Your task to perform on an android device: Search for seafood restaurants on Google Maps Image 0: 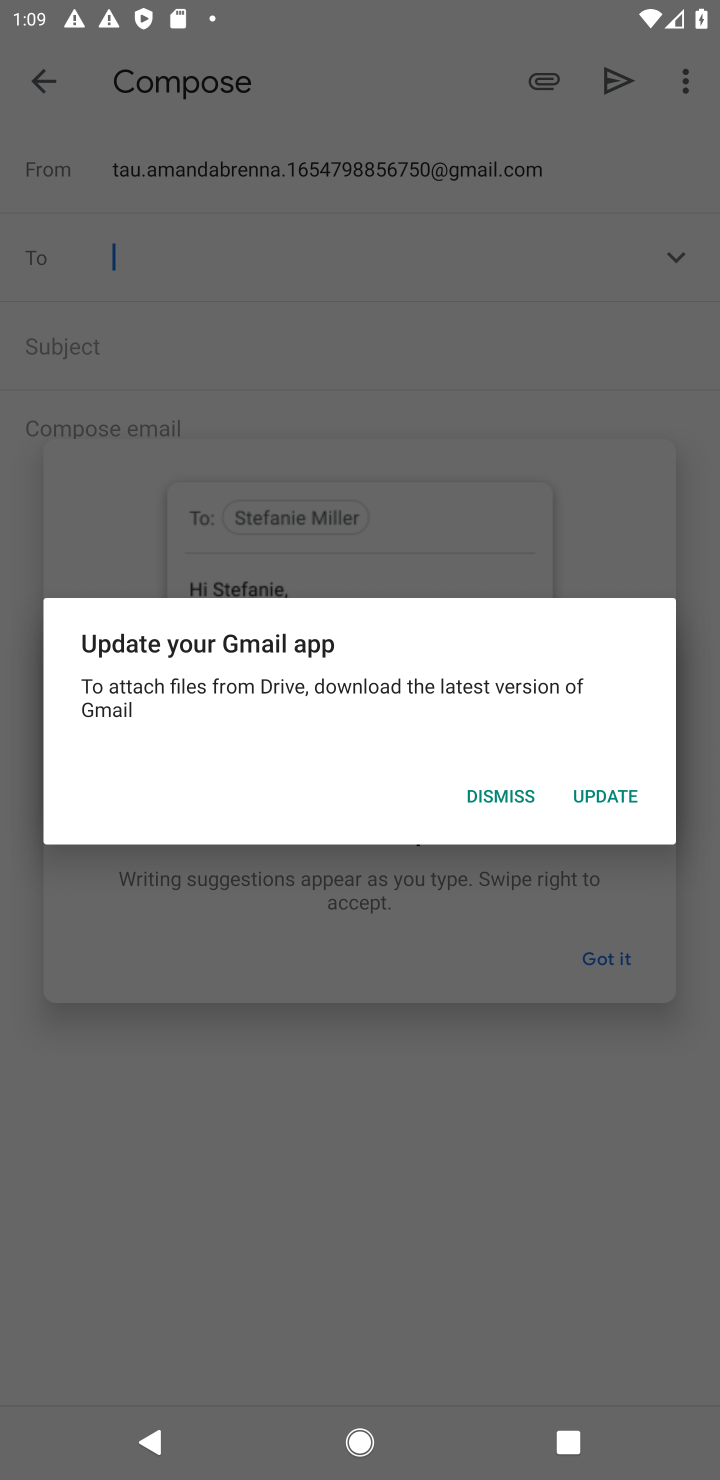
Step 0: press back button
Your task to perform on an android device: Search for seafood restaurants on Google Maps Image 1: 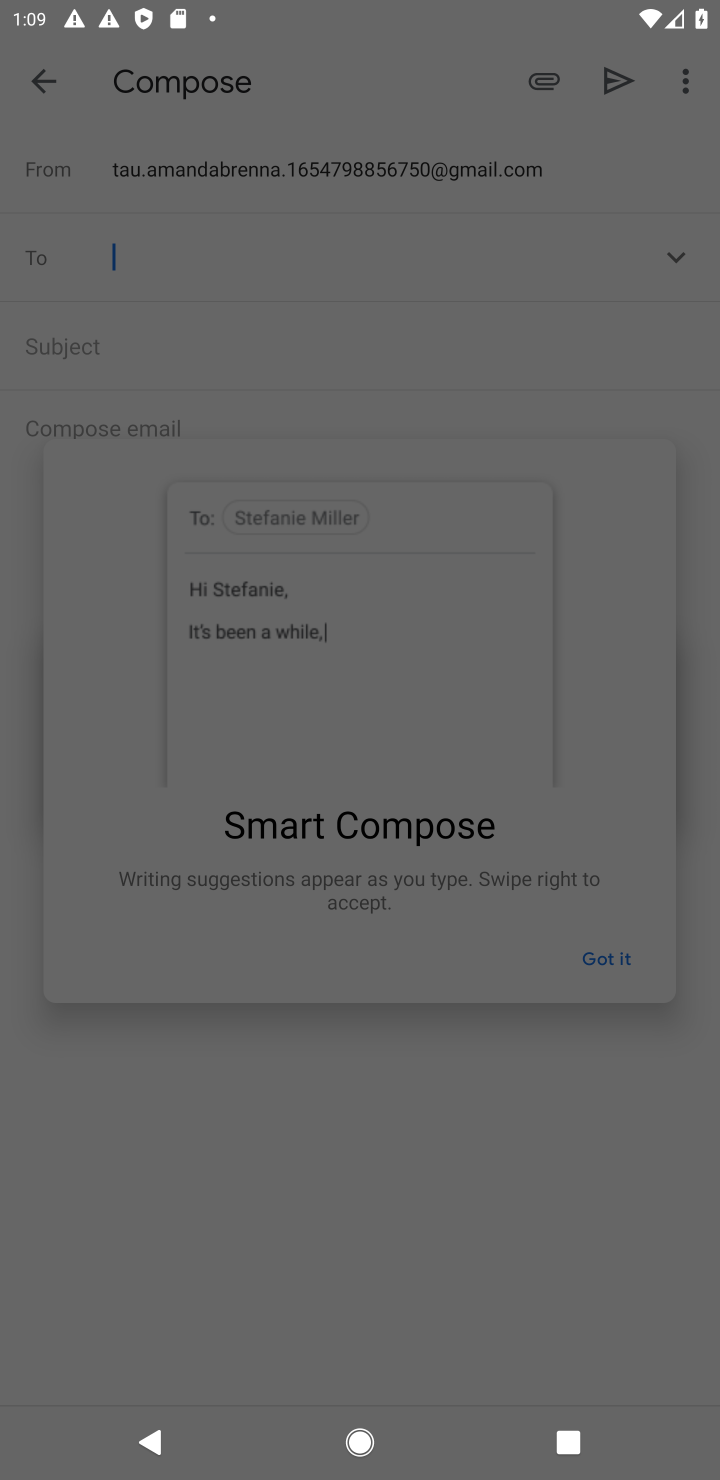
Step 1: press home button
Your task to perform on an android device: Search for seafood restaurants on Google Maps Image 2: 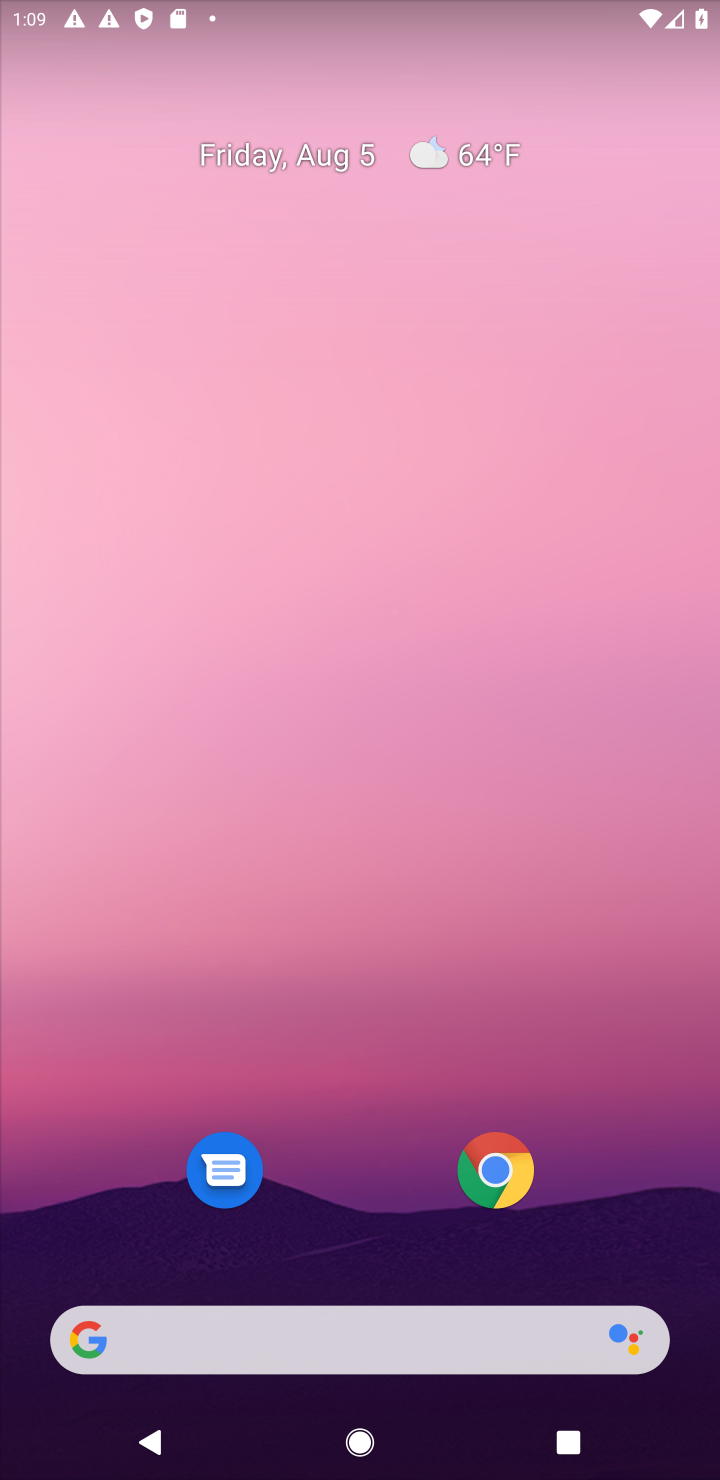
Step 2: drag from (442, 1100) to (309, 132)
Your task to perform on an android device: Search for seafood restaurants on Google Maps Image 3: 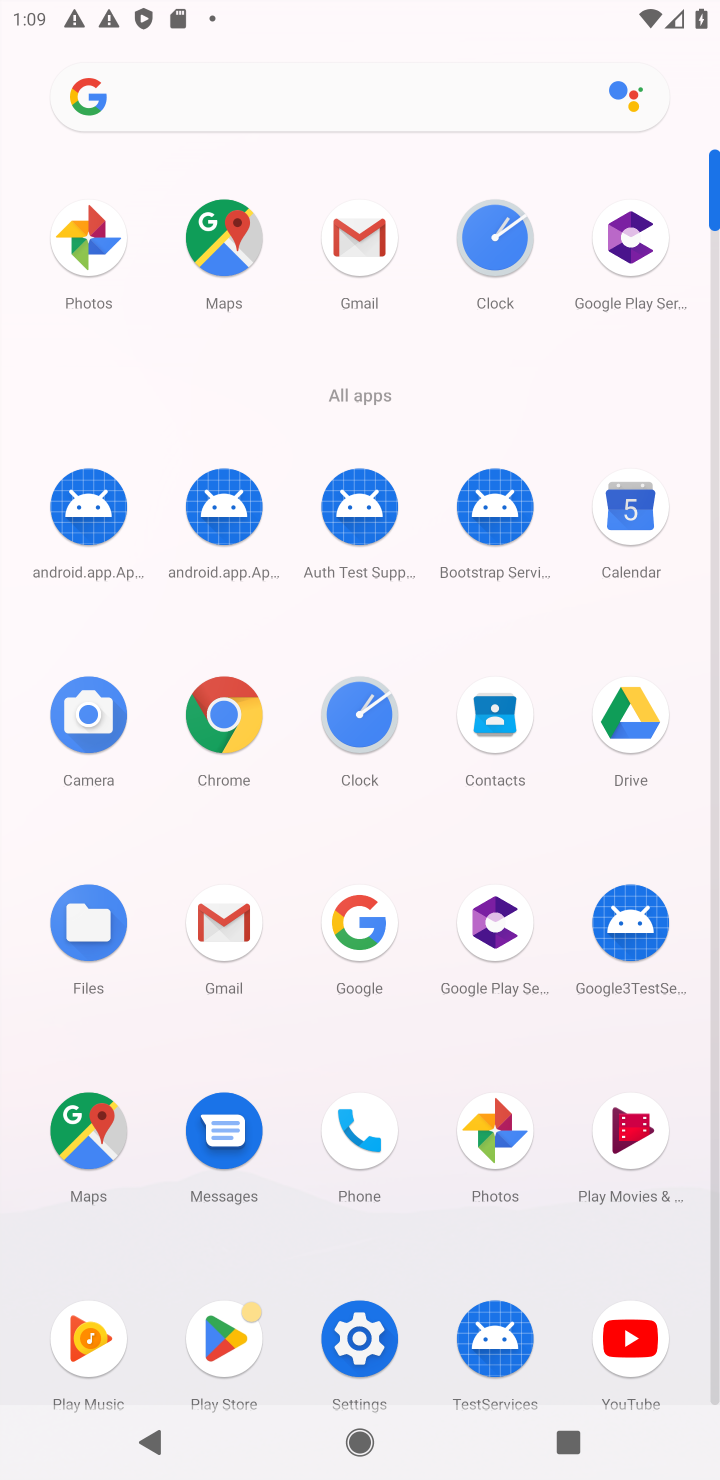
Step 3: click (93, 1141)
Your task to perform on an android device: Search for seafood restaurants on Google Maps Image 4: 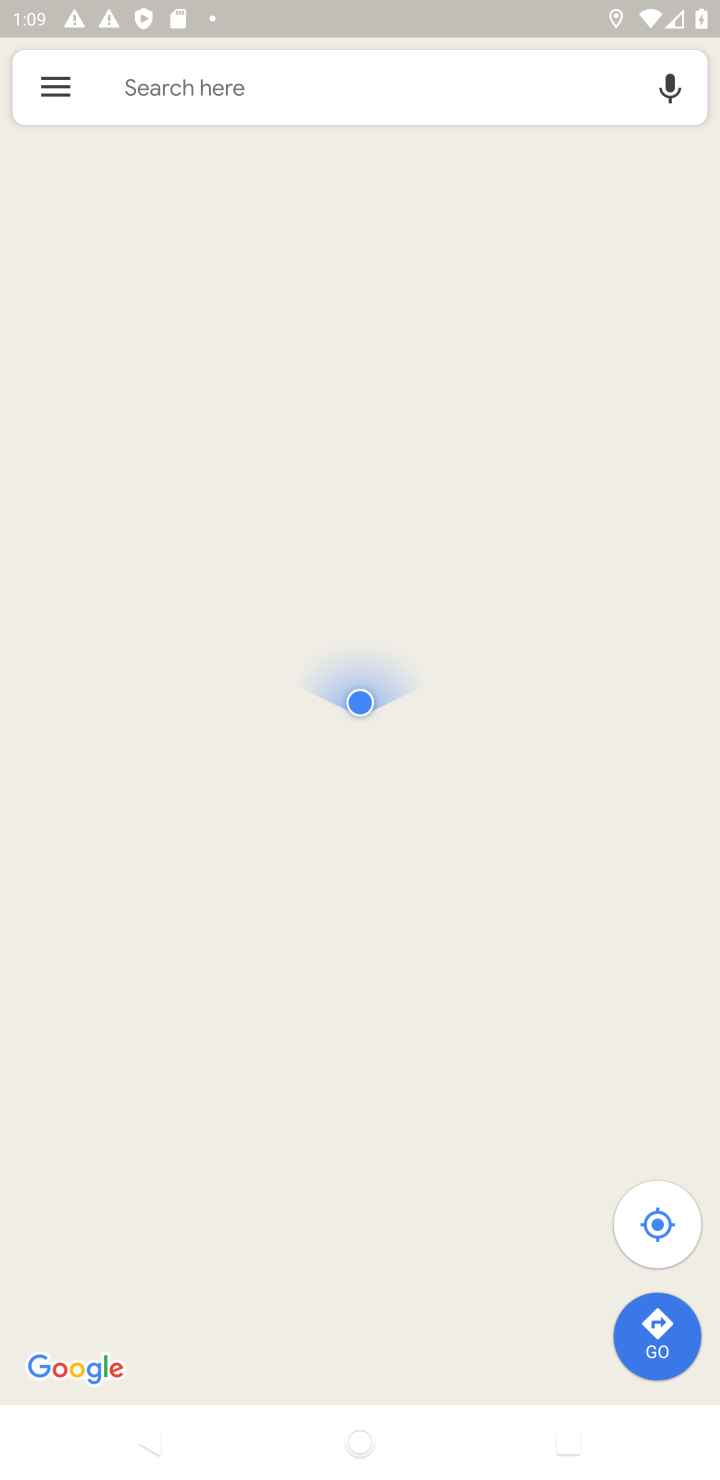
Step 4: click (275, 105)
Your task to perform on an android device: Search for seafood restaurants on Google Maps Image 5: 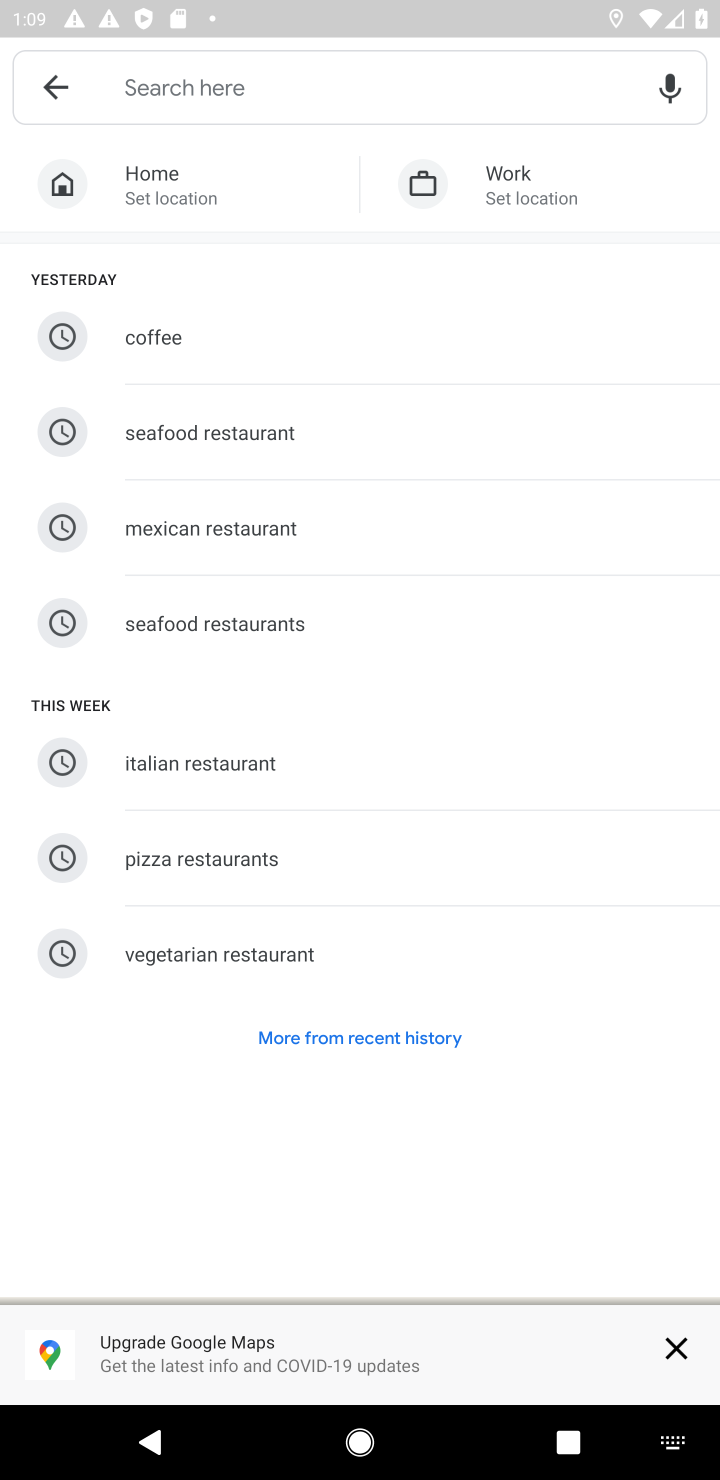
Step 5: type "seafood restaurants "
Your task to perform on an android device: Search for seafood restaurants on Google Maps Image 6: 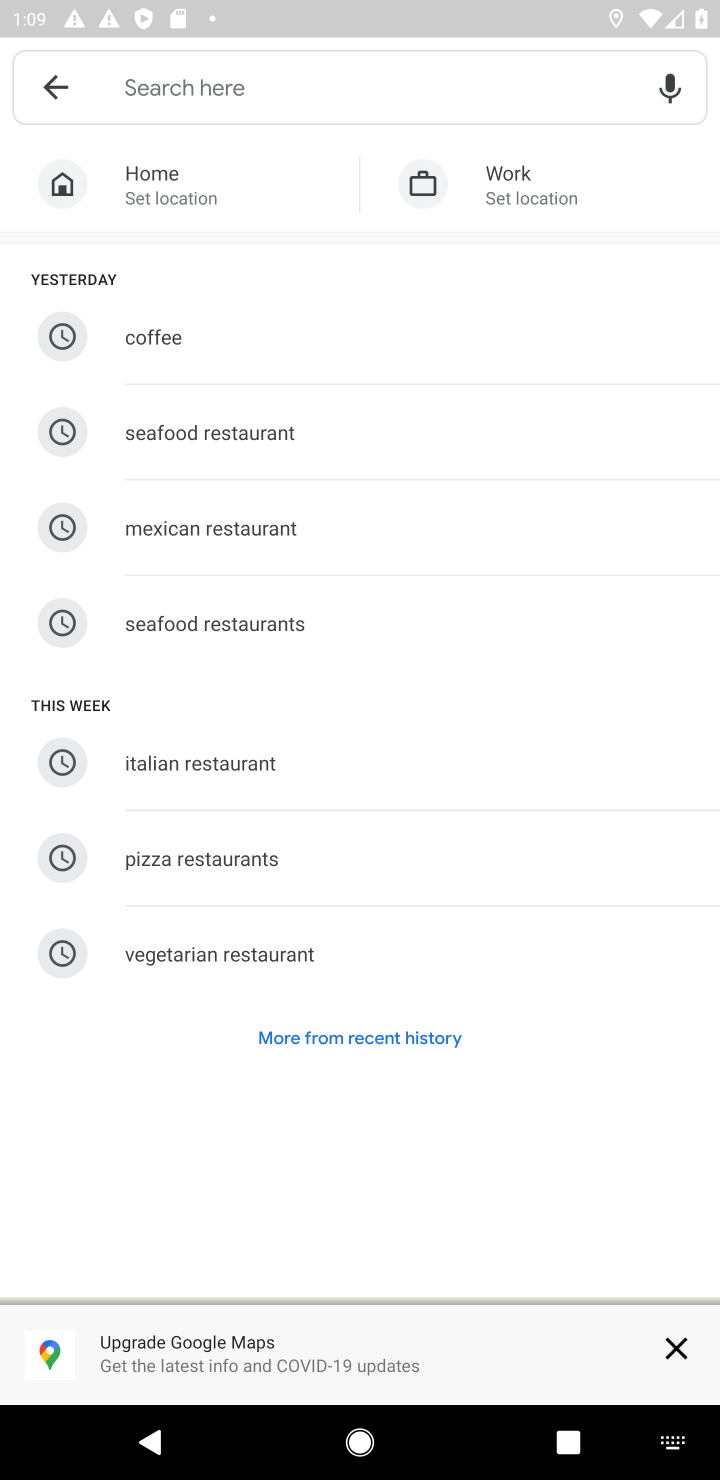
Step 6: click (321, 427)
Your task to perform on an android device: Search for seafood restaurants on Google Maps Image 7: 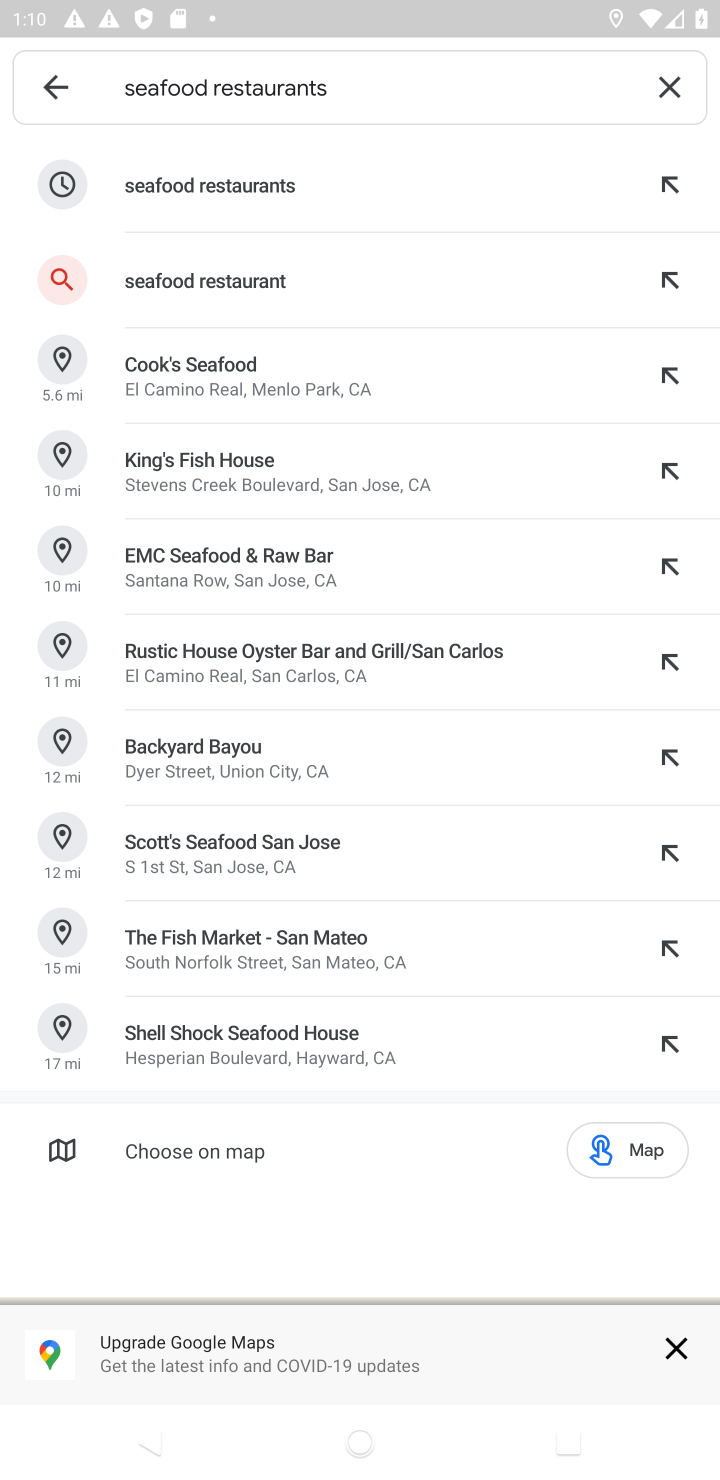
Step 7: click (263, 203)
Your task to perform on an android device: Search for seafood restaurants on Google Maps Image 8: 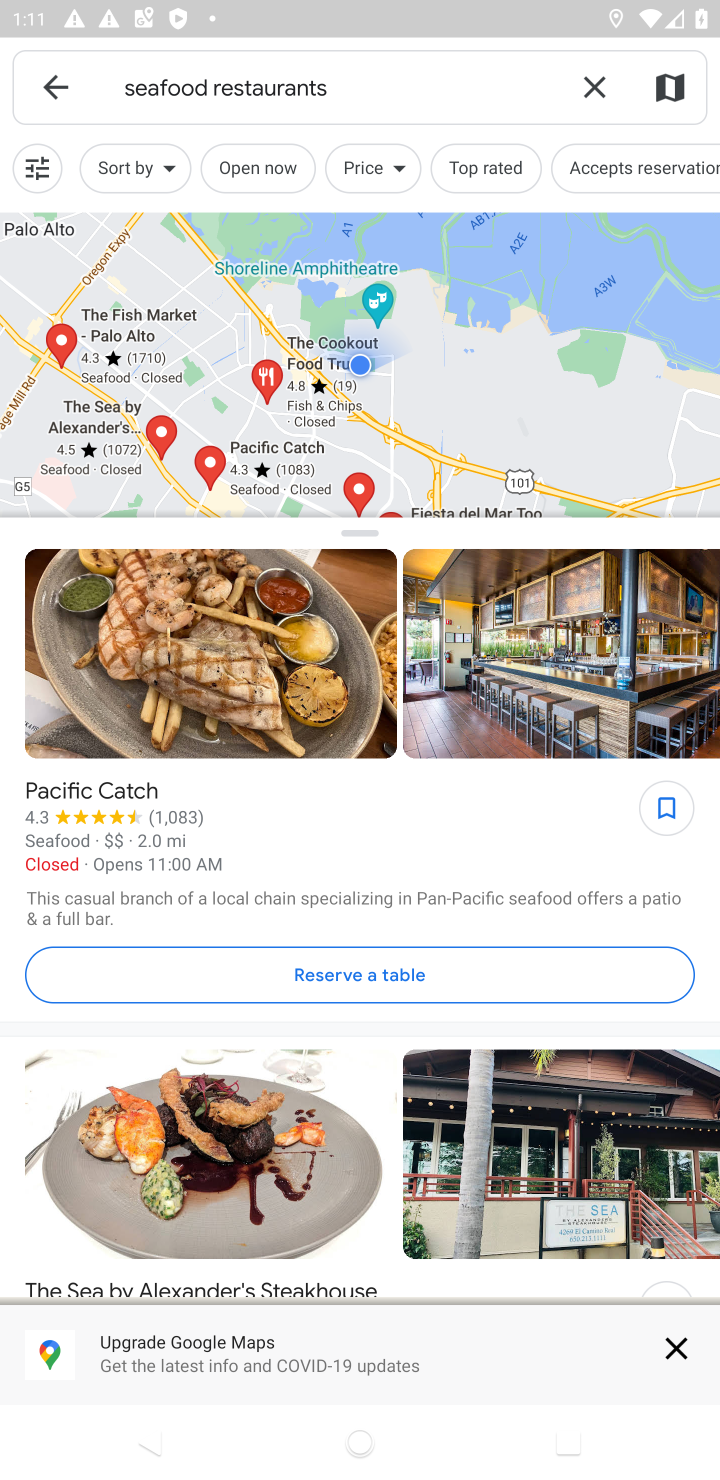
Step 8: task complete